Your task to perform on an android device: Open maps Image 0: 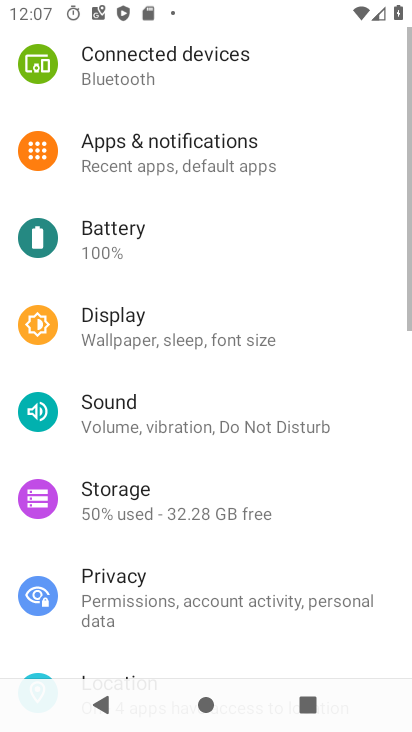
Step 0: drag from (261, 549) to (278, 514)
Your task to perform on an android device: Open maps Image 1: 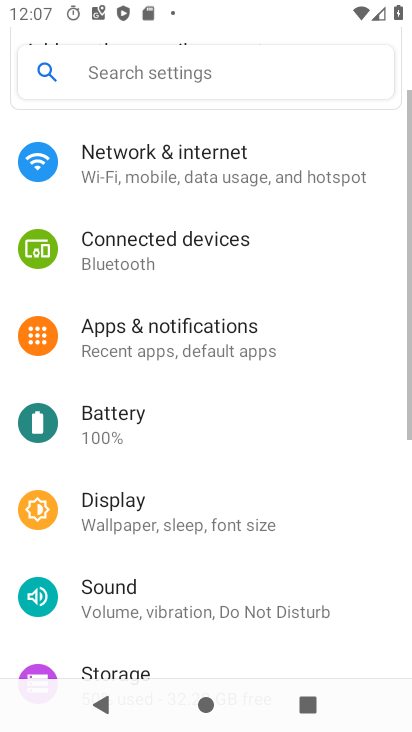
Step 1: press home button
Your task to perform on an android device: Open maps Image 2: 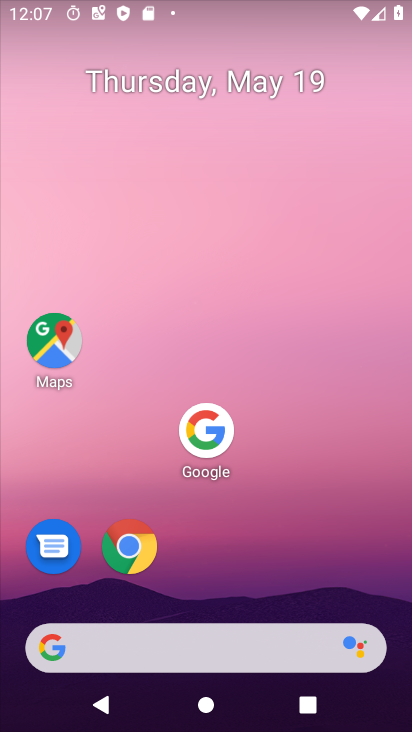
Step 2: click (50, 346)
Your task to perform on an android device: Open maps Image 3: 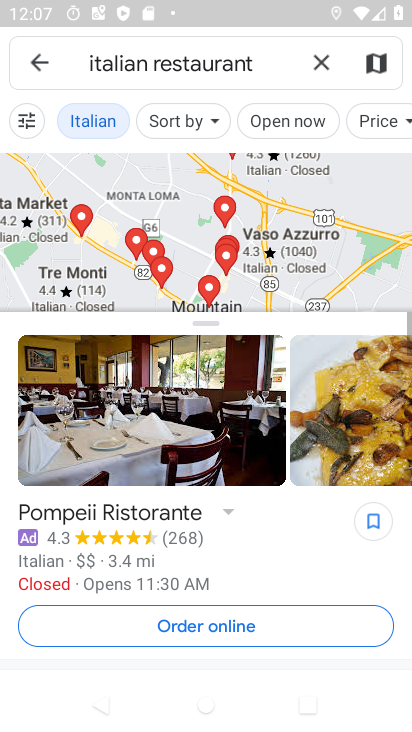
Step 3: task complete